Your task to perform on an android device: turn vacation reply on in the gmail app Image 0: 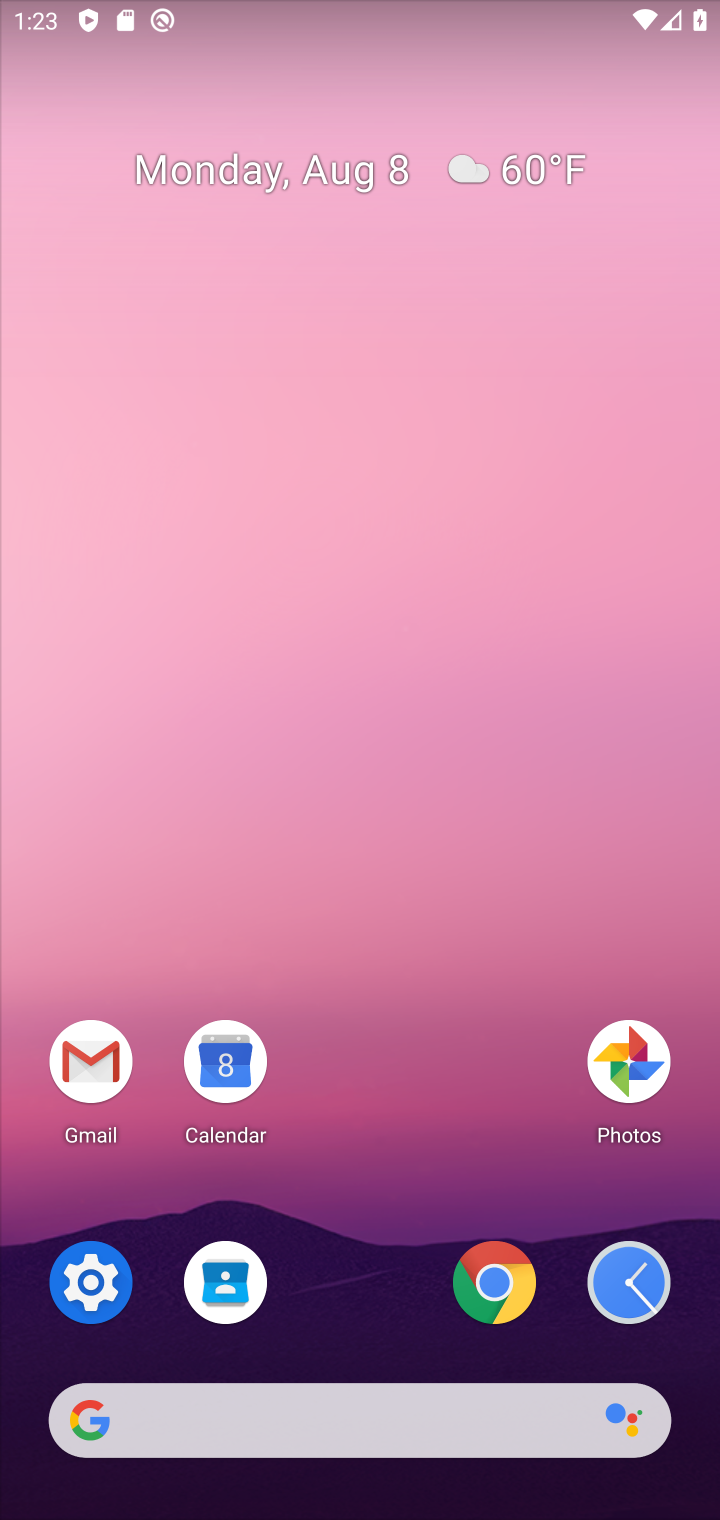
Step 0: click (85, 1059)
Your task to perform on an android device: turn vacation reply on in the gmail app Image 1: 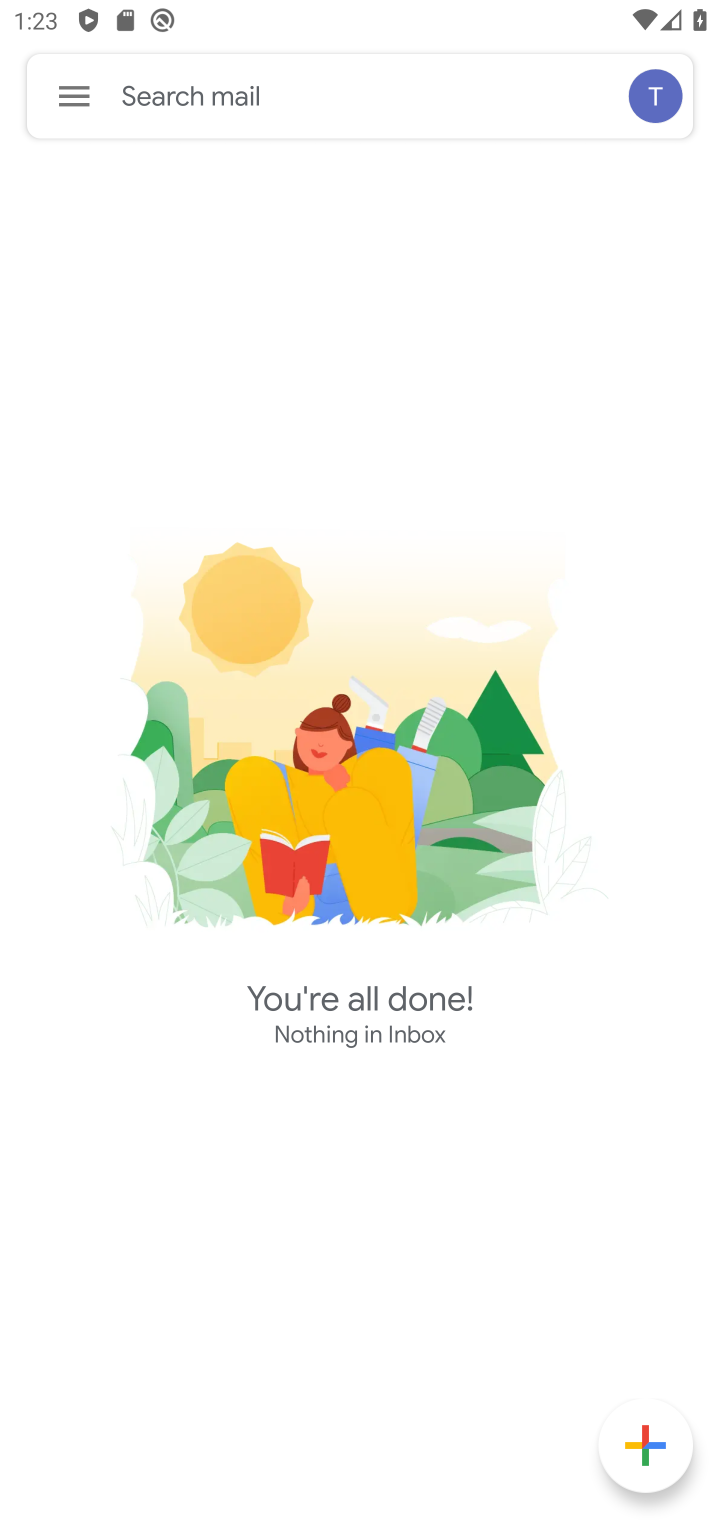
Step 1: click (76, 86)
Your task to perform on an android device: turn vacation reply on in the gmail app Image 2: 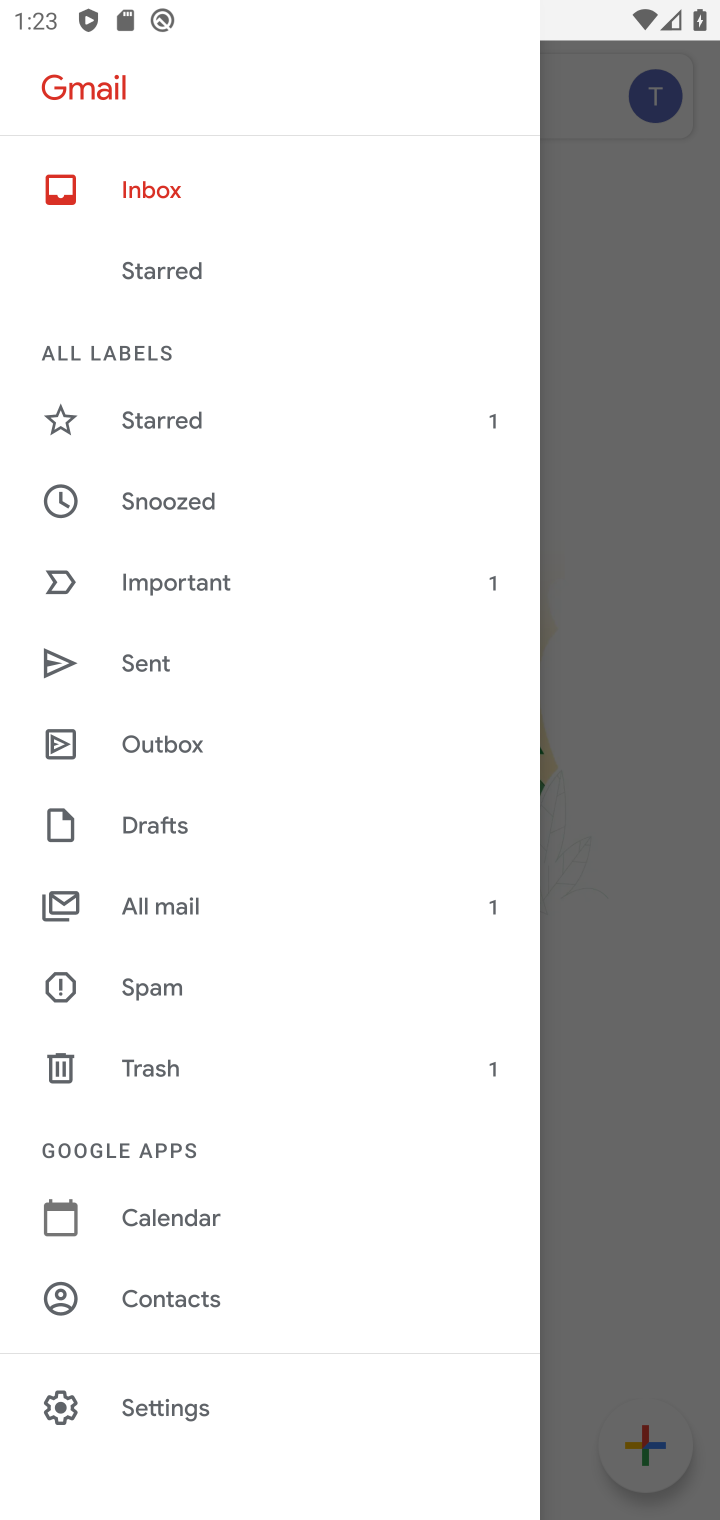
Step 2: click (188, 1395)
Your task to perform on an android device: turn vacation reply on in the gmail app Image 3: 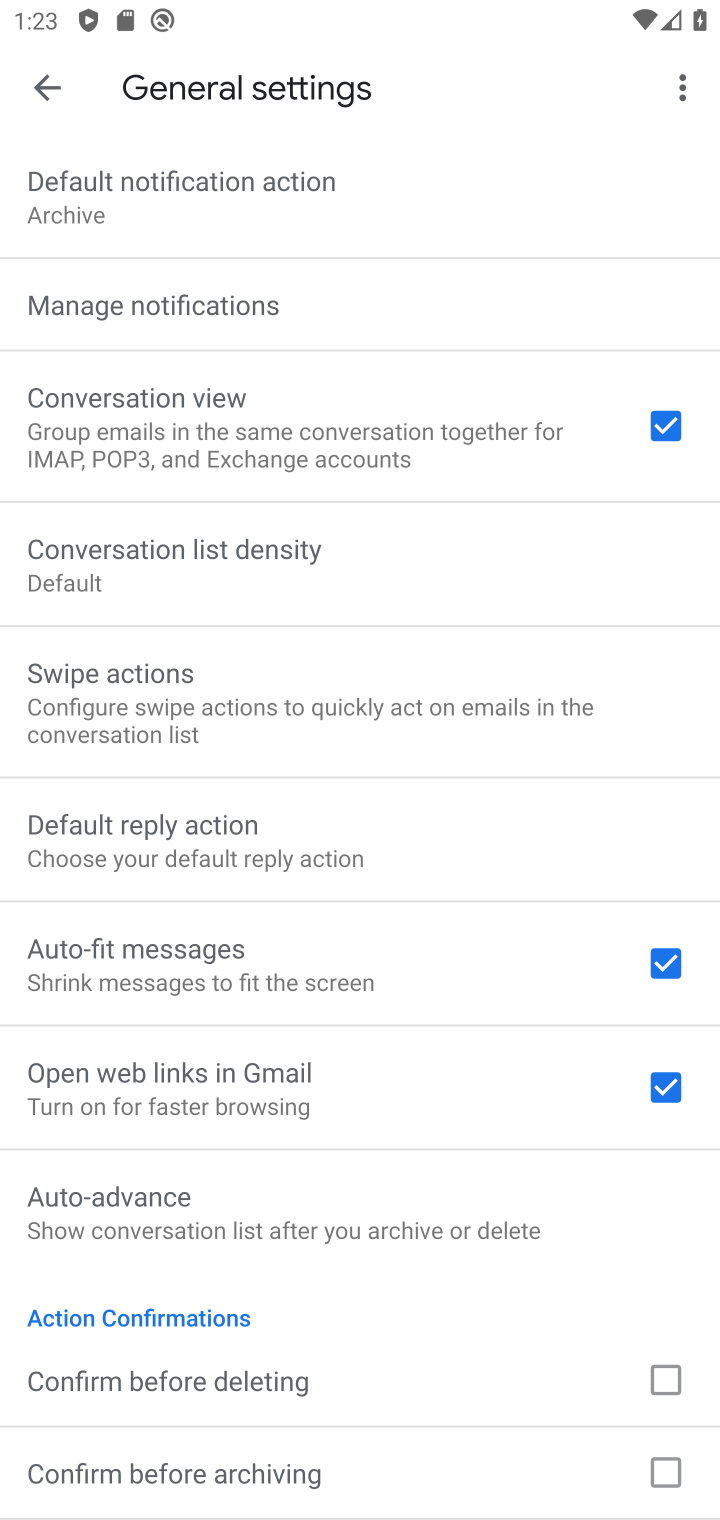
Step 3: click (35, 94)
Your task to perform on an android device: turn vacation reply on in the gmail app Image 4: 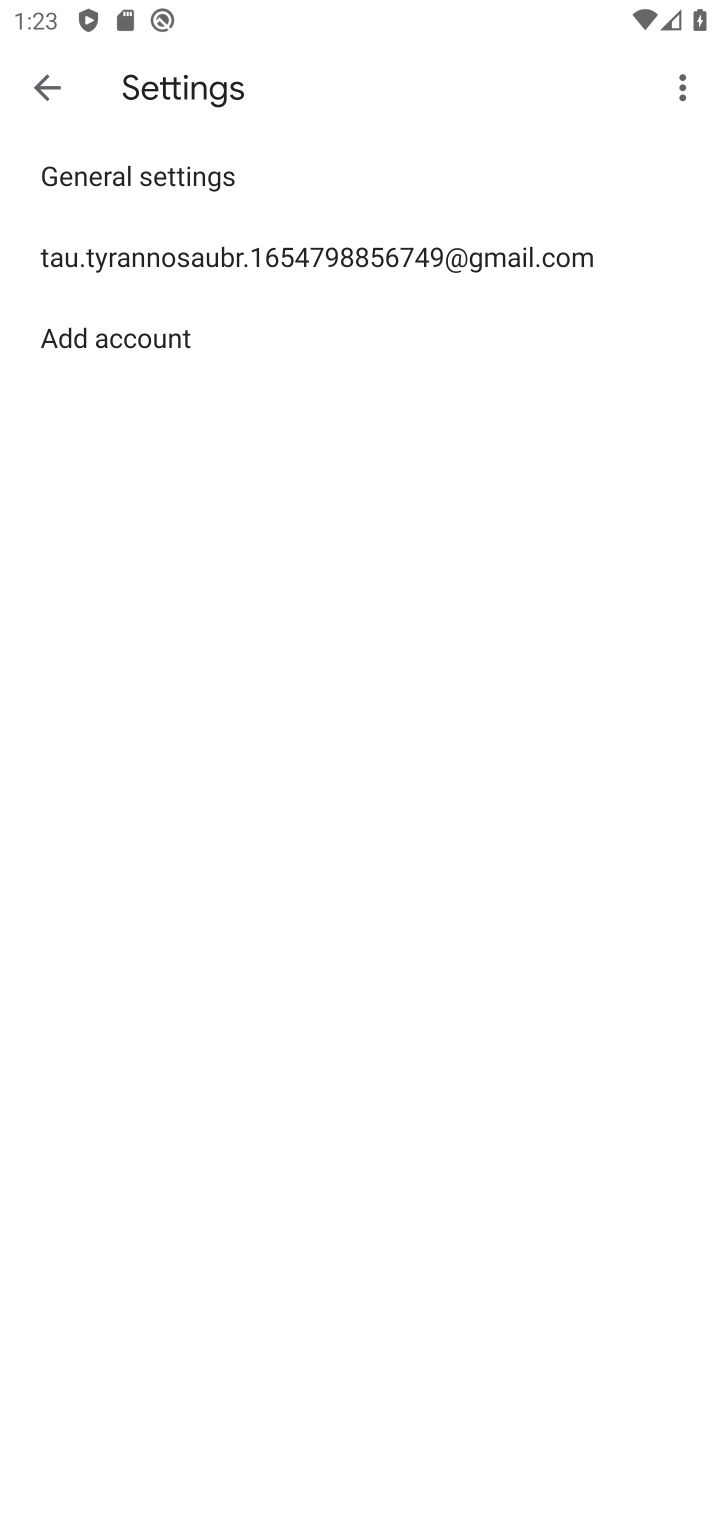
Step 4: click (139, 261)
Your task to perform on an android device: turn vacation reply on in the gmail app Image 5: 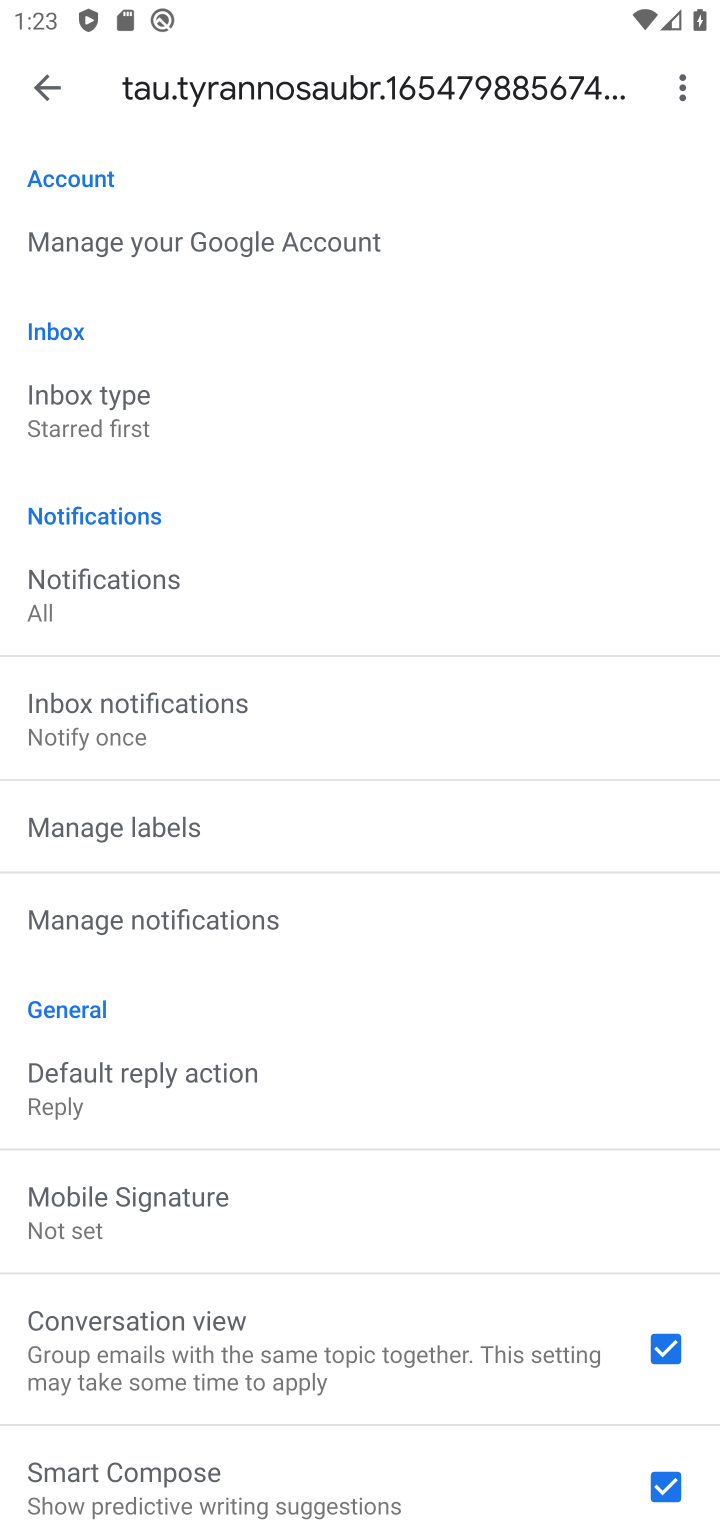
Step 5: drag from (413, 864) to (398, 385)
Your task to perform on an android device: turn vacation reply on in the gmail app Image 6: 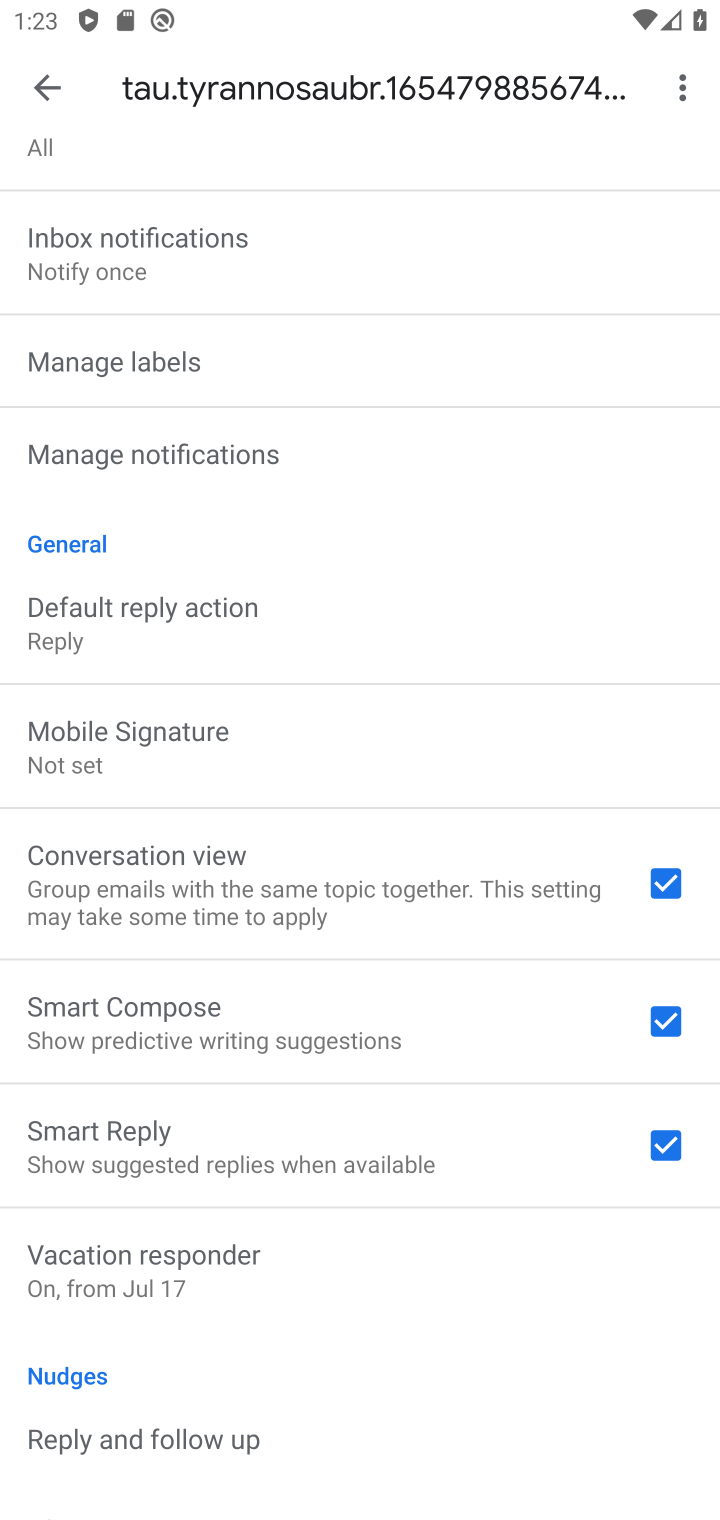
Step 6: click (186, 1256)
Your task to perform on an android device: turn vacation reply on in the gmail app Image 7: 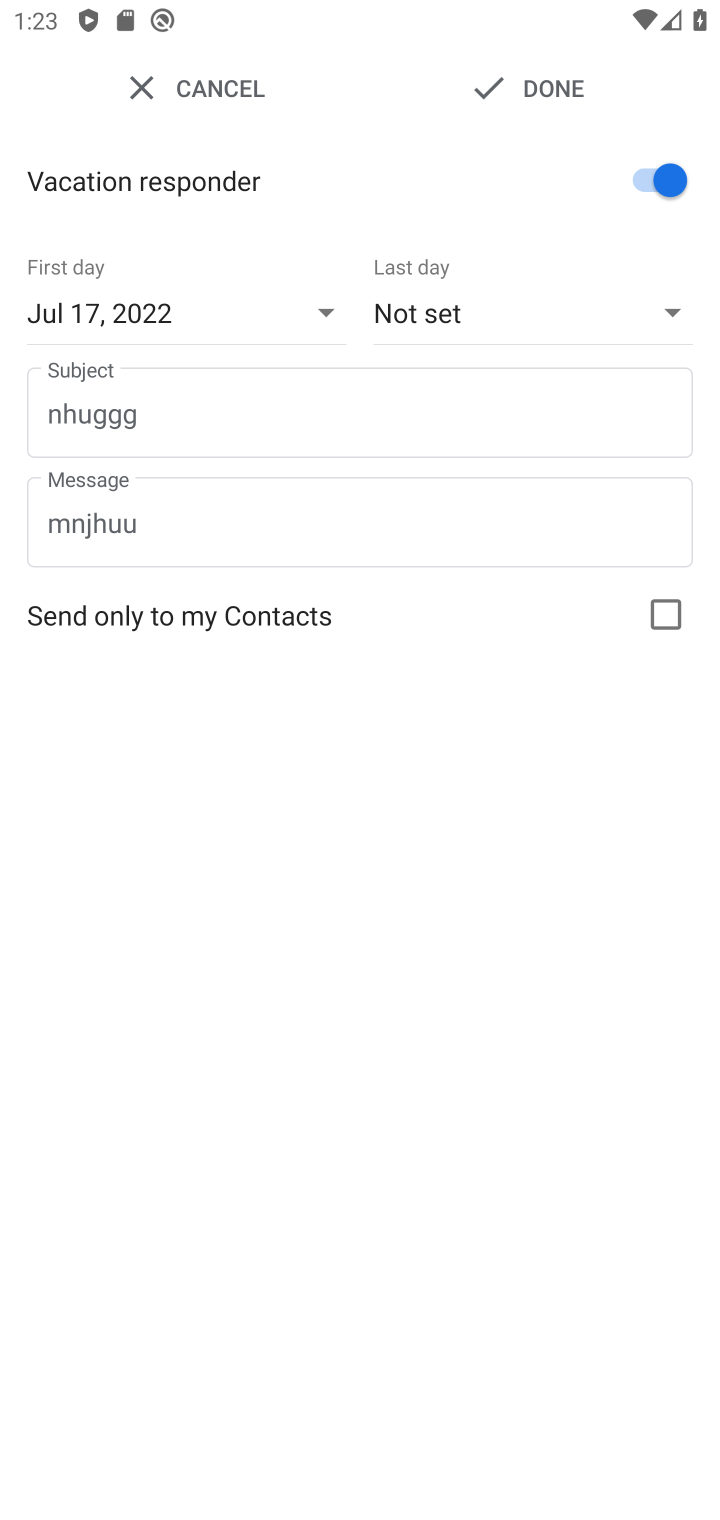
Step 7: task complete